Your task to perform on an android device: delete the emails in spam in the gmail app Image 0: 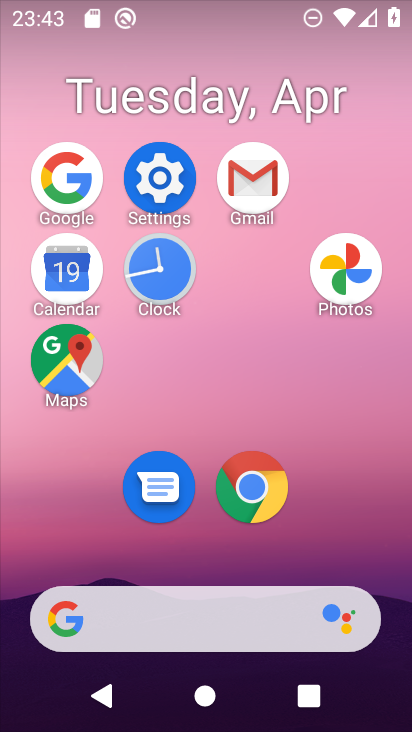
Step 0: click (153, 265)
Your task to perform on an android device: delete the emails in spam in the gmail app Image 1: 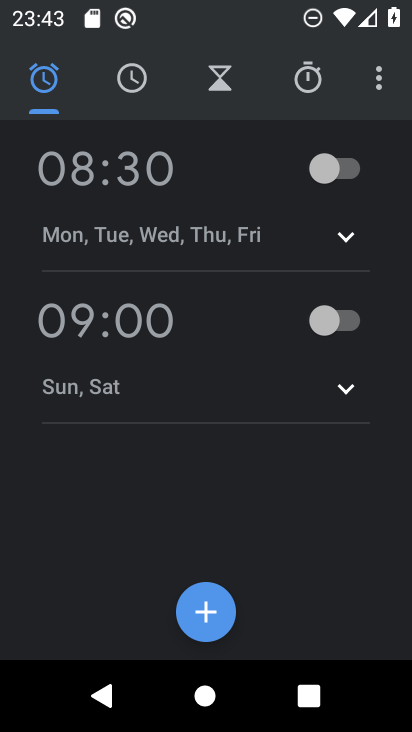
Step 1: click (376, 90)
Your task to perform on an android device: delete the emails in spam in the gmail app Image 2: 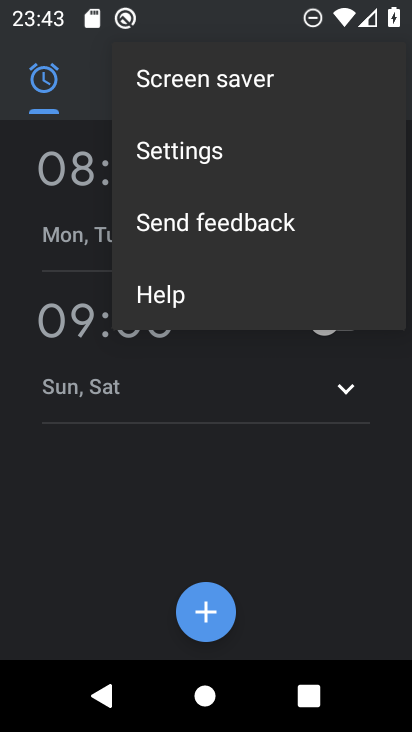
Step 2: click (235, 147)
Your task to perform on an android device: delete the emails in spam in the gmail app Image 3: 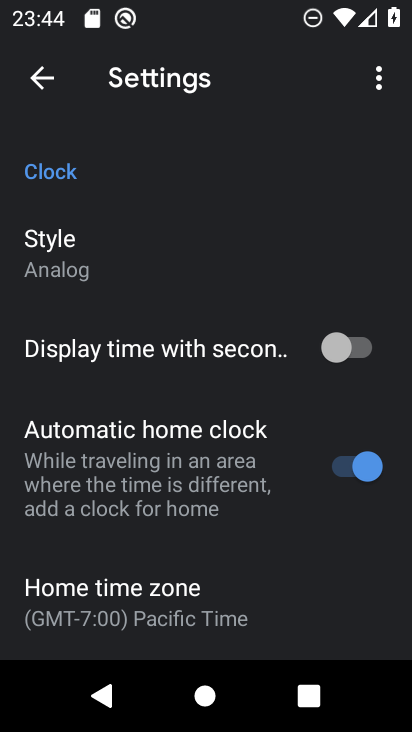
Step 3: press home button
Your task to perform on an android device: delete the emails in spam in the gmail app Image 4: 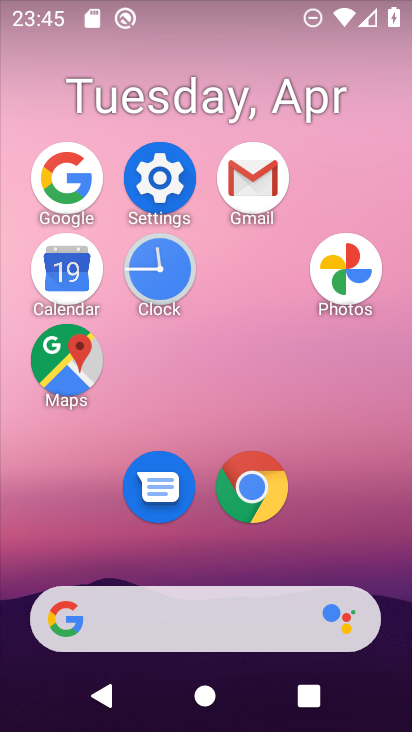
Step 4: click (252, 167)
Your task to perform on an android device: delete the emails in spam in the gmail app Image 5: 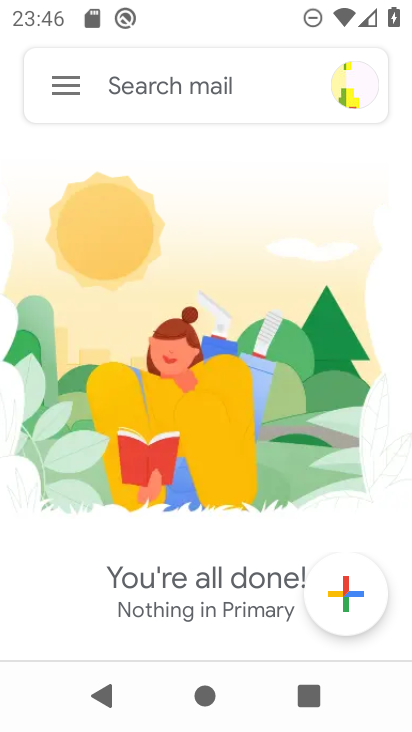
Step 5: click (61, 83)
Your task to perform on an android device: delete the emails in spam in the gmail app Image 6: 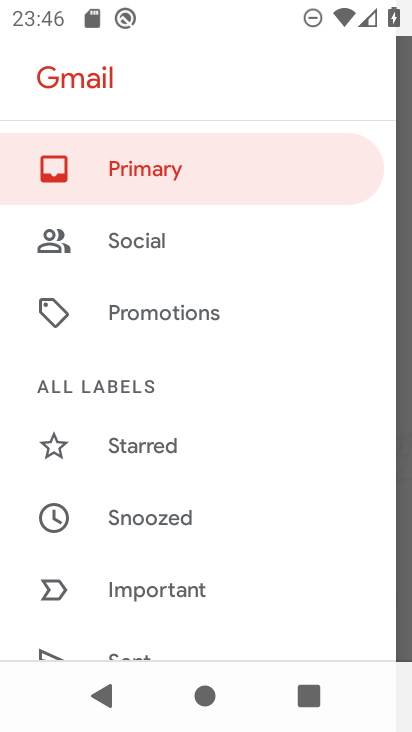
Step 6: drag from (224, 559) to (259, 119)
Your task to perform on an android device: delete the emails in spam in the gmail app Image 7: 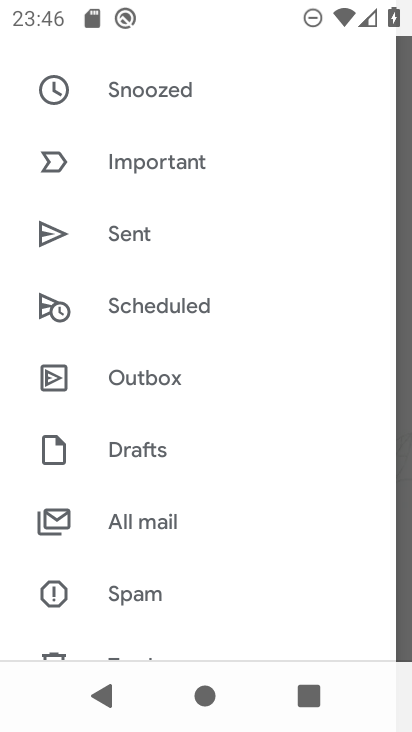
Step 7: drag from (252, 582) to (272, 109)
Your task to perform on an android device: delete the emails in spam in the gmail app Image 8: 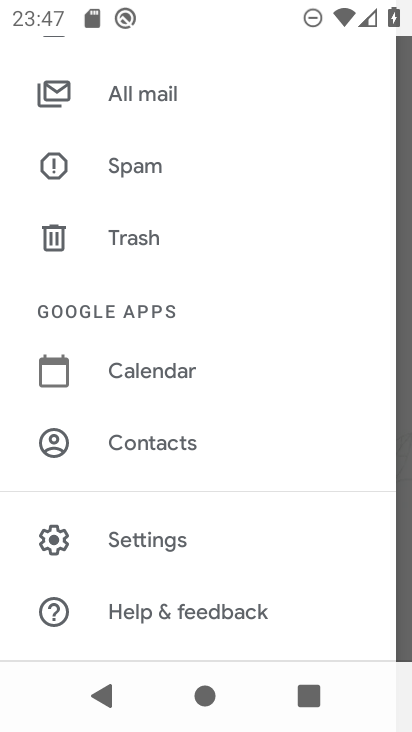
Step 8: click (188, 102)
Your task to perform on an android device: delete the emails in spam in the gmail app Image 9: 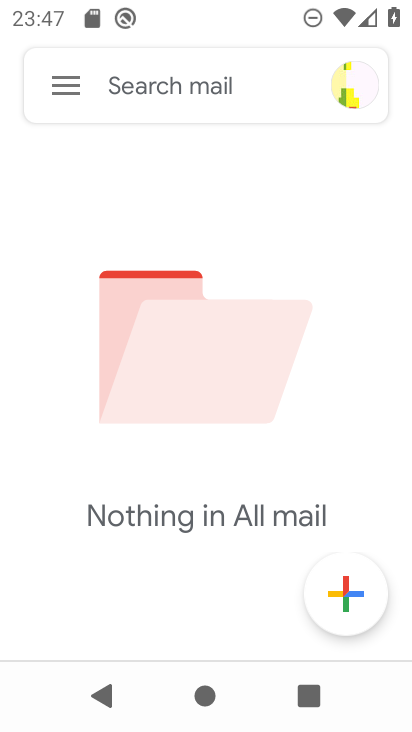
Step 9: task complete